Your task to perform on an android device: Go to CNN.com Image 0: 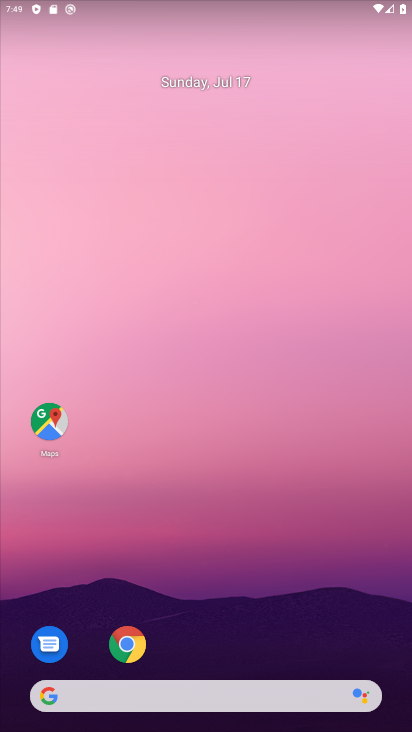
Step 0: click (120, 647)
Your task to perform on an android device: Go to CNN.com Image 1: 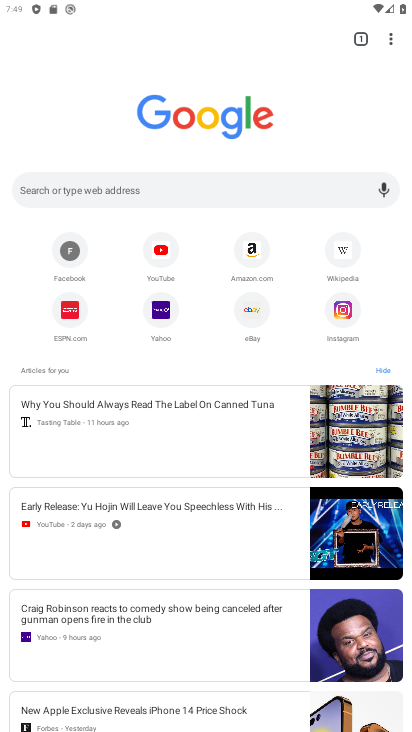
Step 1: click (305, 193)
Your task to perform on an android device: Go to CNN.com Image 2: 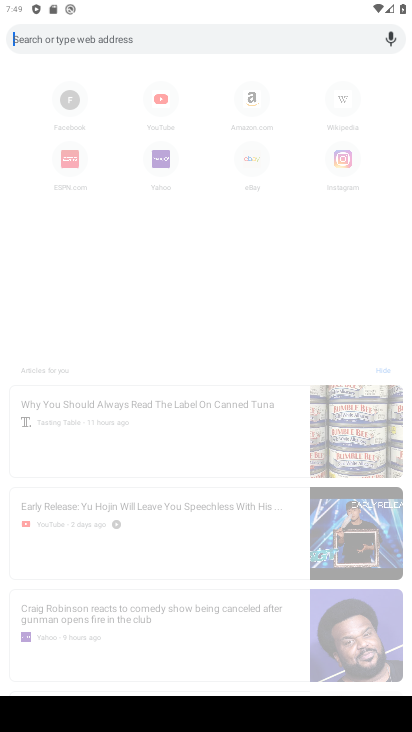
Step 2: type "CNN.com"
Your task to perform on an android device: Go to CNN.com Image 3: 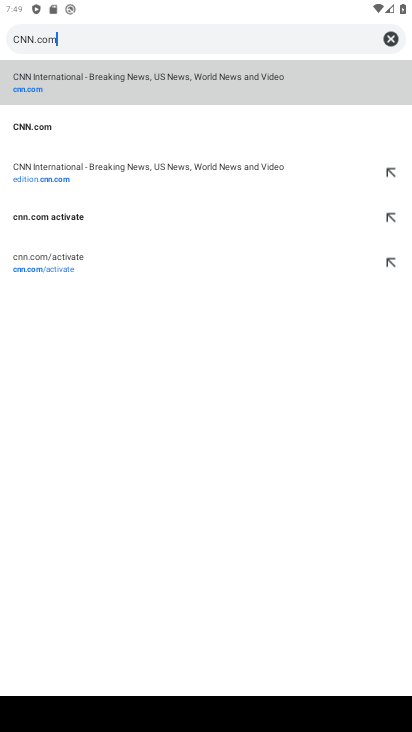
Step 3: click (188, 78)
Your task to perform on an android device: Go to CNN.com Image 4: 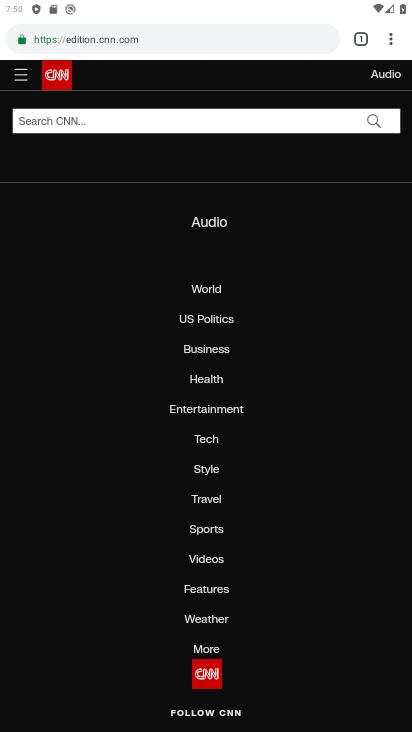
Step 4: task complete